Your task to perform on an android device: Open the calendar and show me this week's events Image 0: 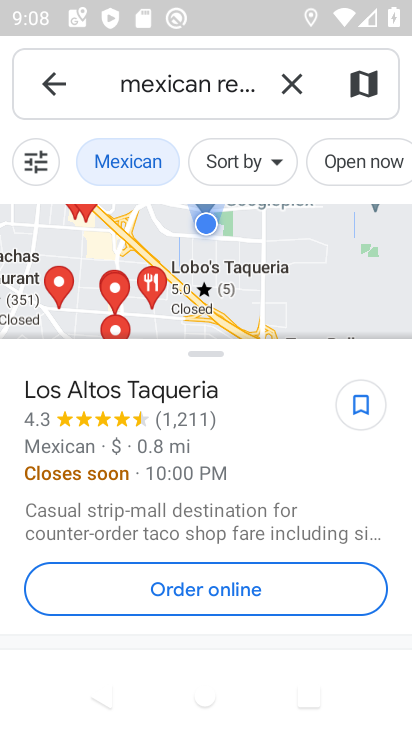
Step 0: press home button
Your task to perform on an android device: Open the calendar and show me this week's events Image 1: 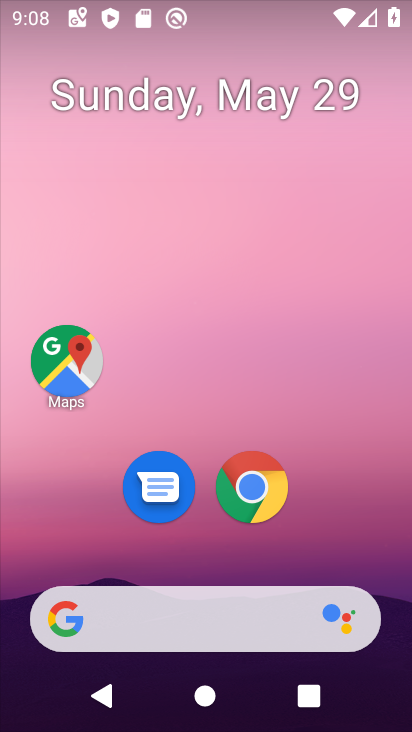
Step 1: drag from (151, 724) to (164, 62)
Your task to perform on an android device: Open the calendar and show me this week's events Image 2: 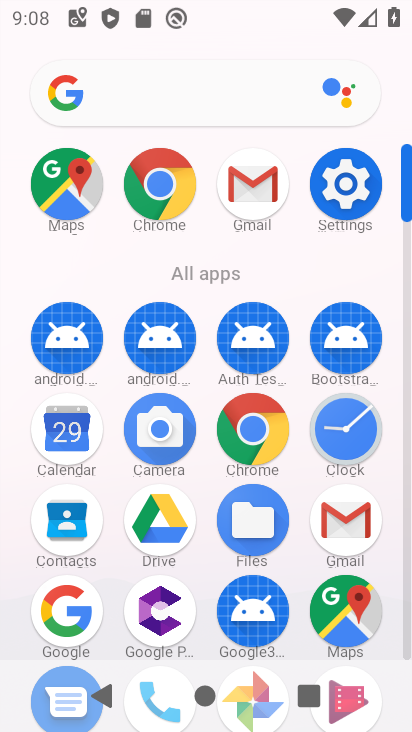
Step 2: click (67, 439)
Your task to perform on an android device: Open the calendar and show me this week's events Image 3: 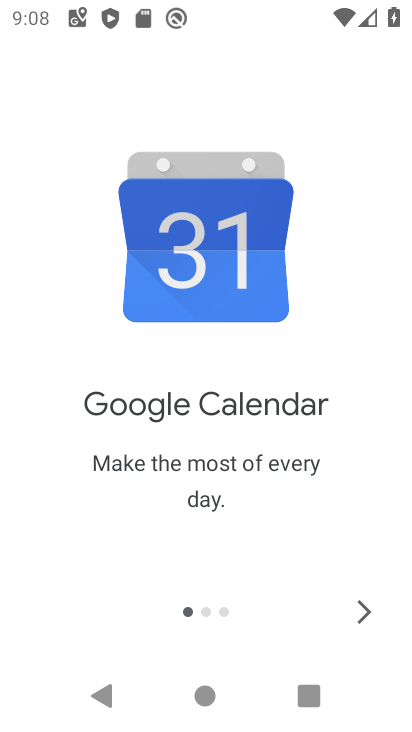
Step 3: click (356, 624)
Your task to perform on an android device: Open the calendar and show me this week's events Image 4: 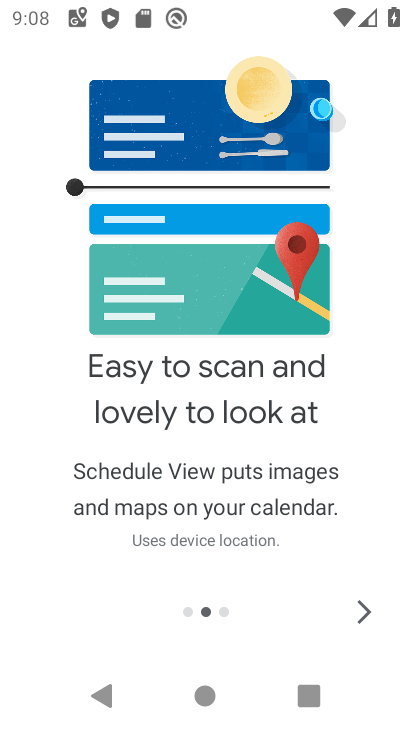
Step 4: click (356, 624)
Your task to perform on an android device: Open the calendar and show me this week's events Image 5: 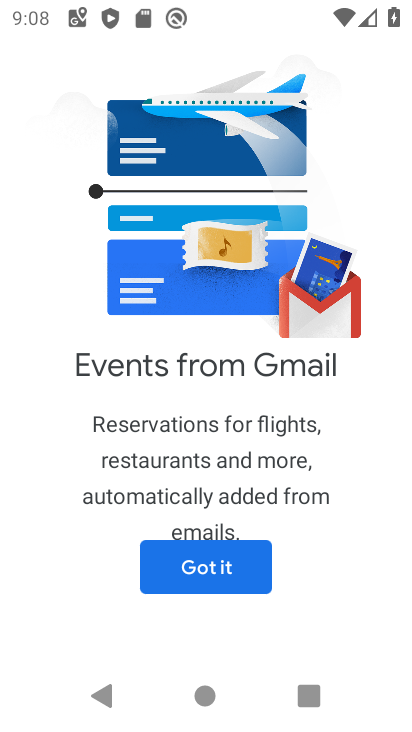
Step 5: click (222, 580)
Your task to perform on an android device: Open the calendar and show me this week's events Image 6: 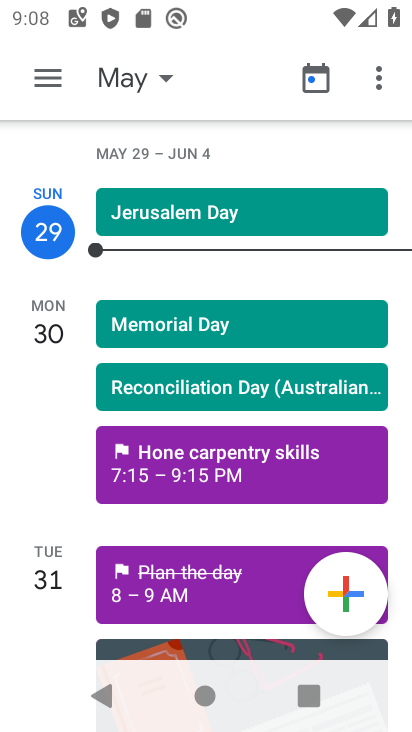
Step 6: click (42, 89)
Your task to perform on an android device: Open the calendar and show me this week's events Image 7: 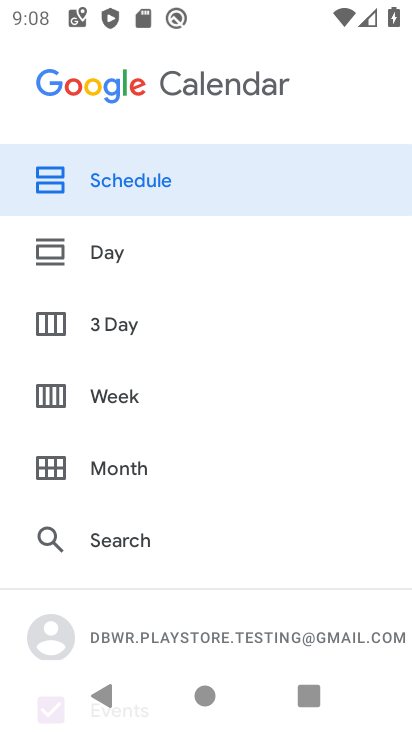
Step 7: click (94, 401)
Your task to perform on an android device: Open the calendar and show me this week's events Image 8: 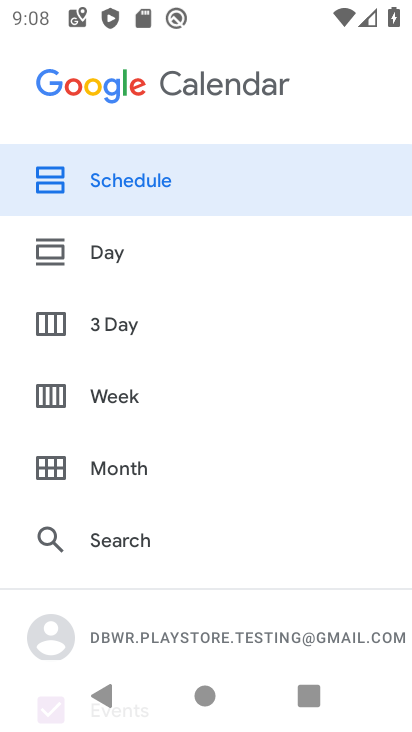
Step 8: drag from (213, 611) to (224, 144)
Your task to perform on an android device: Open the calendar and show me this week's events Image 9: 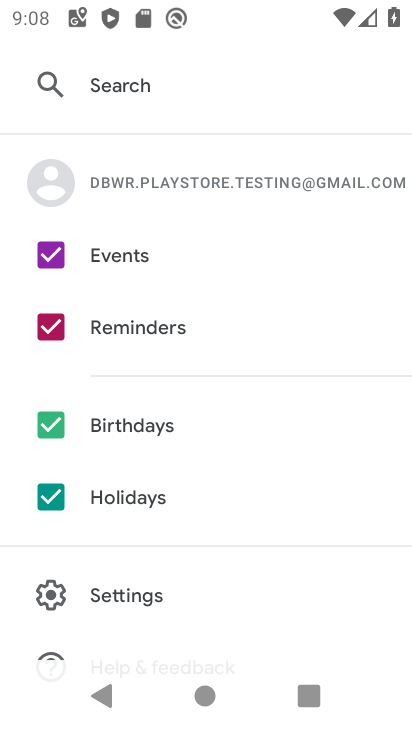
Step 9: click (54, 503)
Your task to perform on an android device: Open the calendar and show me this week's events Image 10: 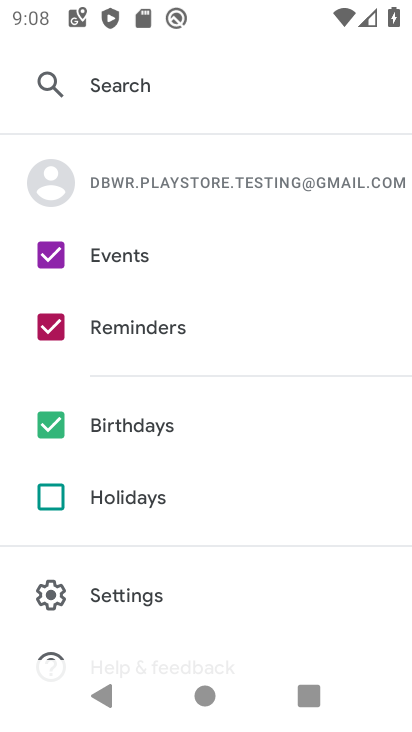
Step 10: click (54, 428)
Your task to perform on an android device: Open the calendar and show me this week's events Image 11: 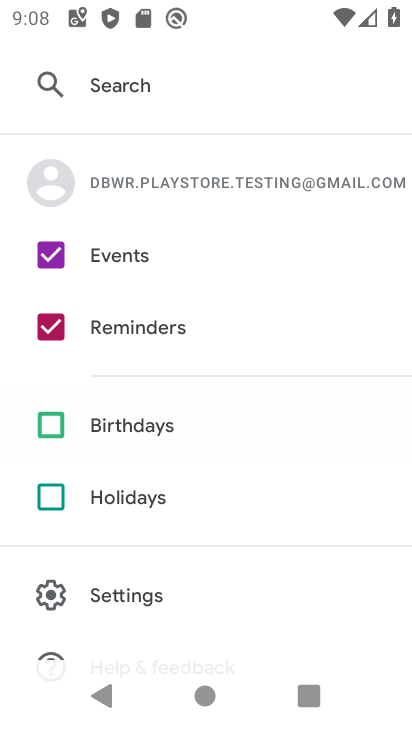
Step 11: click (46, 337)
Your task to perform on an android device: Open the calendar and show me this week's events Image 12: 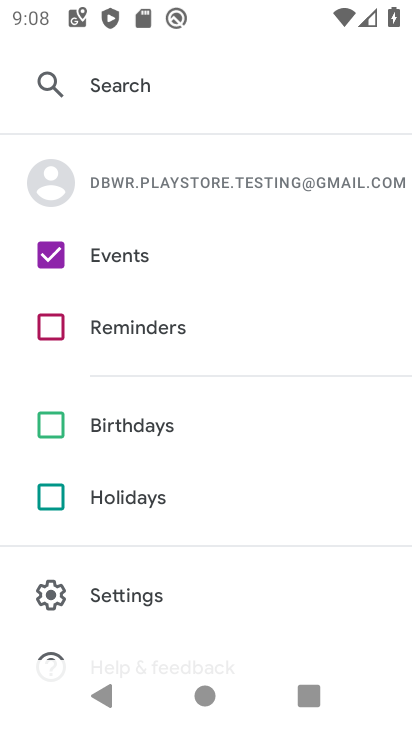
Step 12: drag from (274, 135) to (290, 642)
Your task to perform on an android device: Open the calendar and show me this week's events Image 13: 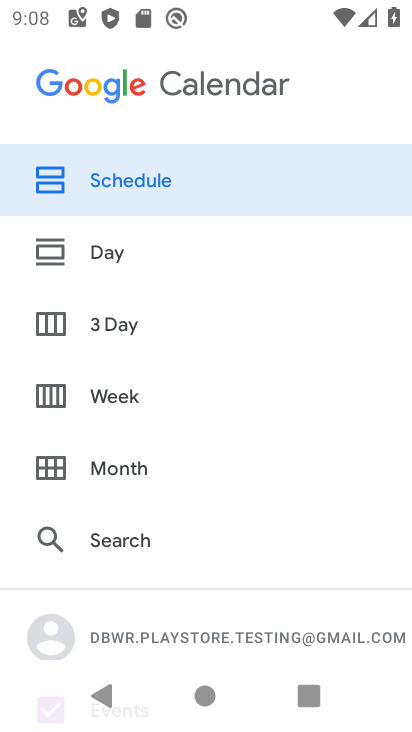
Step 13: click (125, 394)
Your task to perform on an android device: Open the calendar and show me this week's events Image 14: 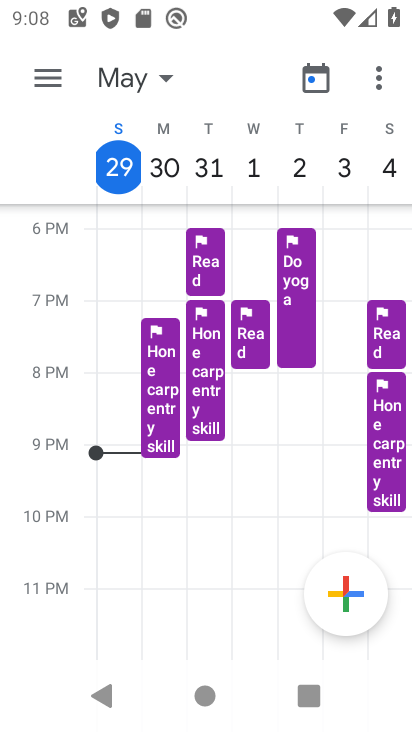
Step 14: click (162, 172)
Your task to perform on an android device: Open the calendar and show me this week's events Image 15: 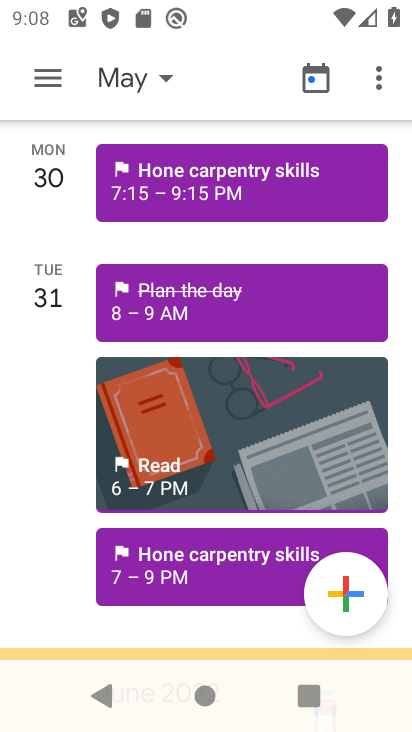
Step 15: click (164, 81)
Your task to perform on an android device: Open the calendar and show me this week's events Image 16: 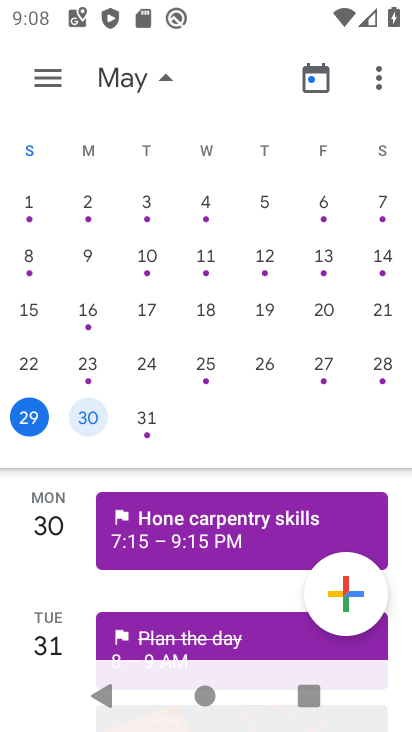
Step 16: task complete